Your task to perform on an android device: Go to Maps Image 0: 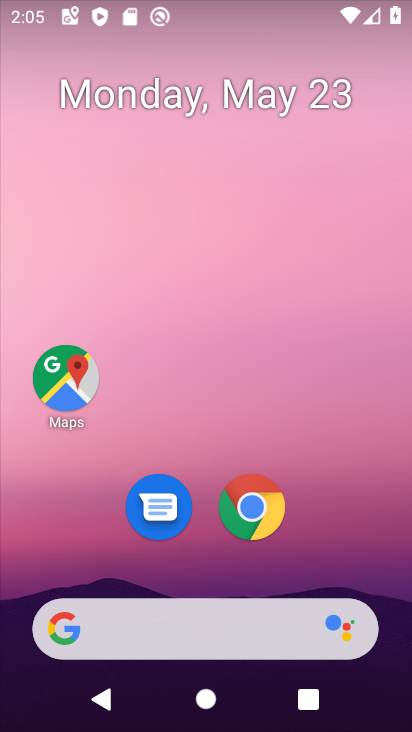
Step 0: drag from (227, 714) to (177, 198)
Your task to perform on an android device: Go to Maps Image 1: 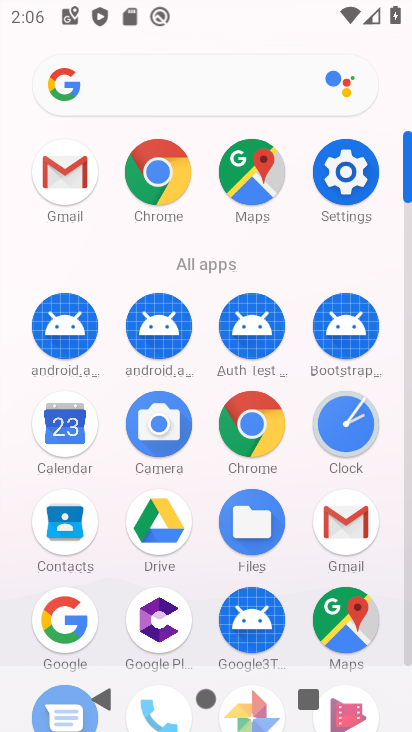
Step 1: click (352, 620)
Your task to perform on an android device: Go to Maps Image 2: 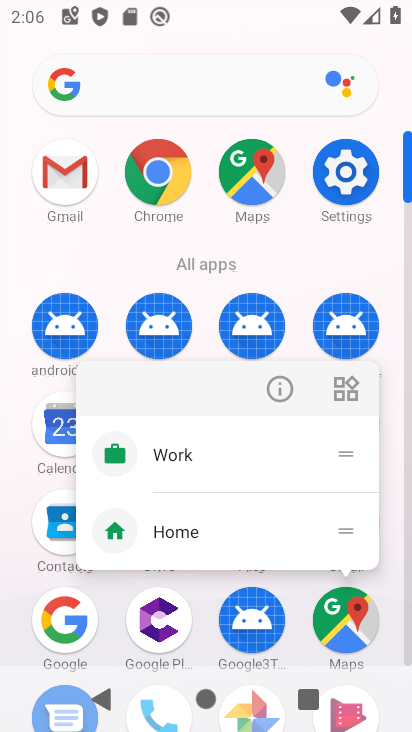
Step 2: click (352, 607)
Your task to perform on an android device: Go to Maps Image 3: 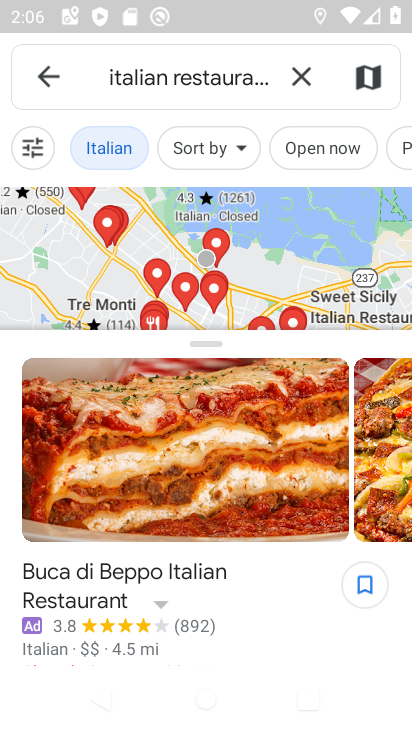
Step 3: task complete